Your task to perform on an android device: read, delete, or share a saved page in the chrome app Image 0: 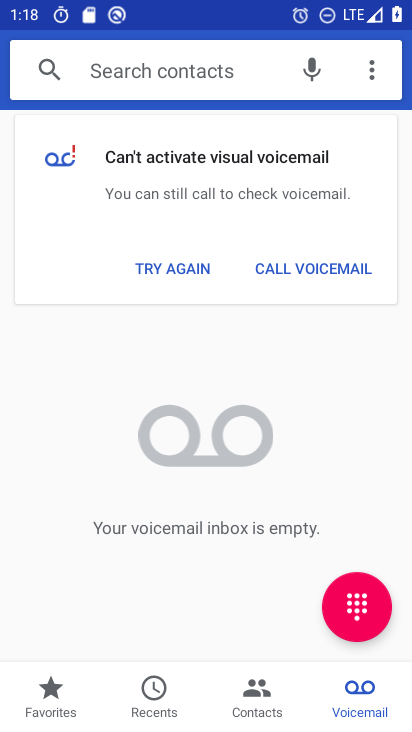
Step 0: press home button
Your task to perform on an android device: read, delete, or share a saved page in the chrome app Image 1: 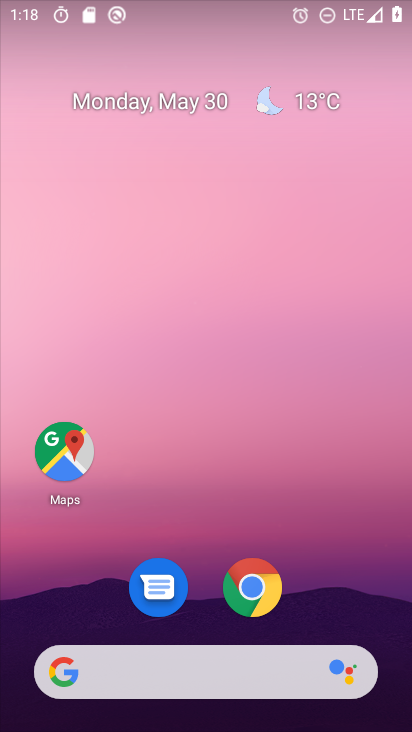
Step 1: click (259, 589)
Your task to perform on an android device: read, delete, or share a saved page in the chrome app Image 2: 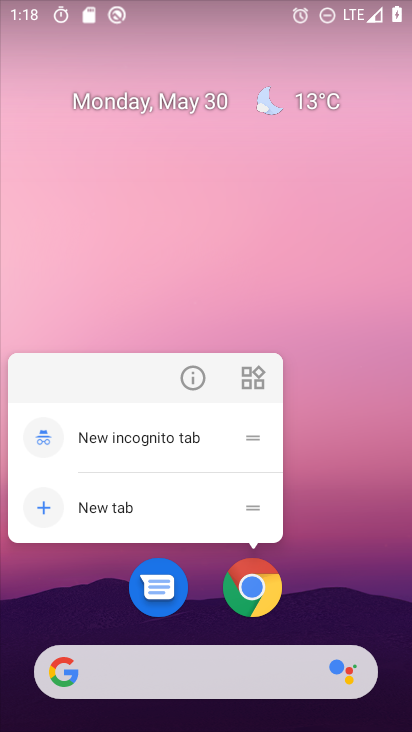
Step 2: click (252, 590)
Your task to perform on an android device: read, delete, or share a saved page in the chrome app Image 3: 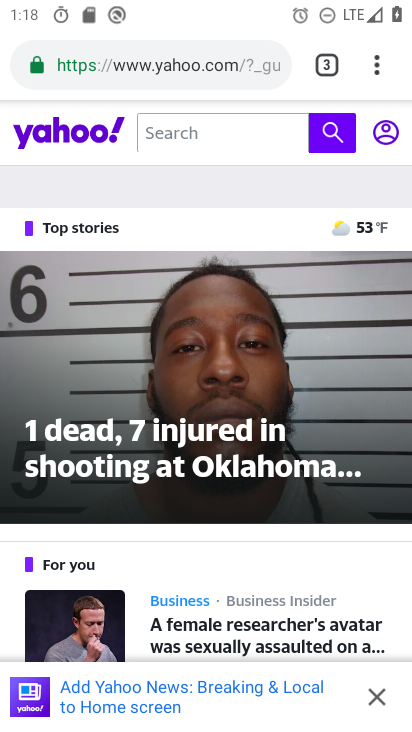
Step 3: task complete